Your task to perform on an android device: toggle translation in the chrome app Image 0: 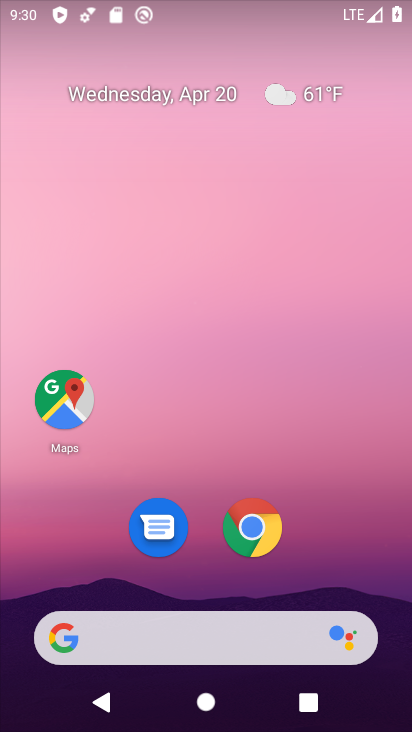
Step 0: click (255, 532)
Your task to perform on an android device: toggle translation in the chrome app Image 1: 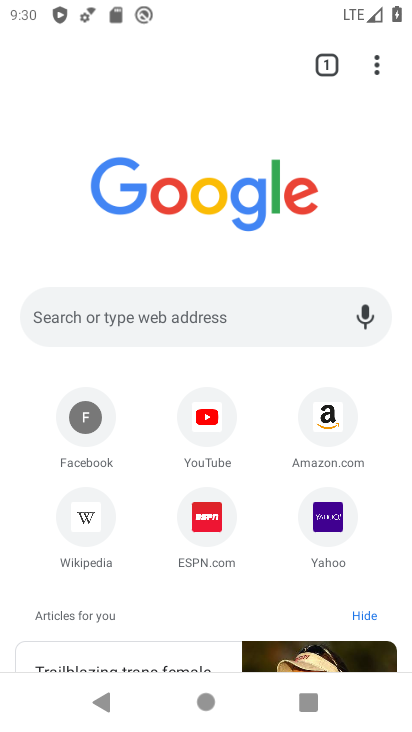
Step 1: click (376, 65)
Your task to perform on an android device: toggle translation in the chrome app Image 2: 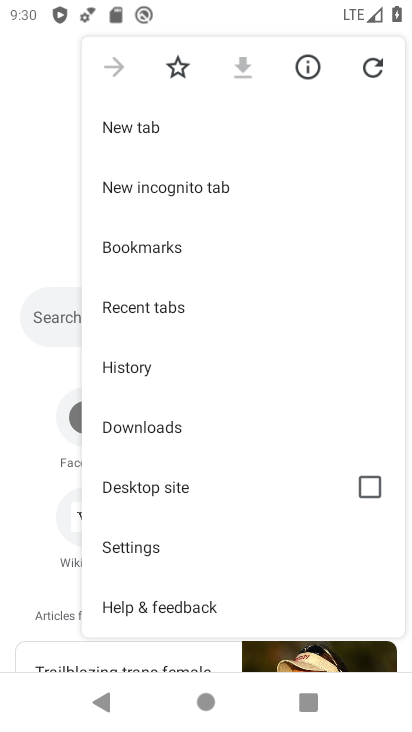
Step 2: click (129, 541)
Your task to perform on an android device: toggle translation in the chrome app Image 3: 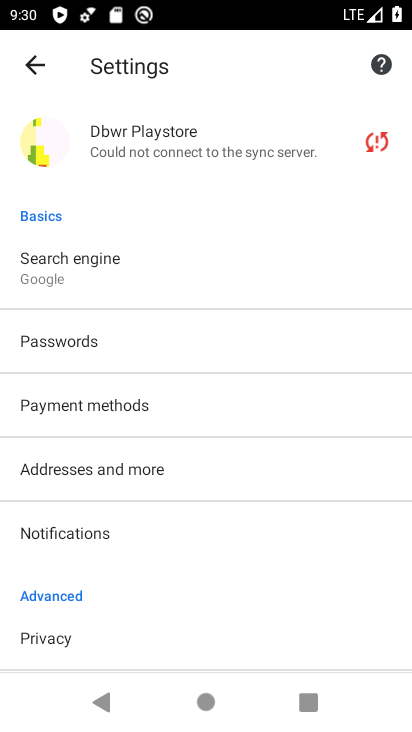
Step 3: drag from (200, 584) to (235, 214)
Your task to perform on an android device: toggle translation in the chrome app Image 4: 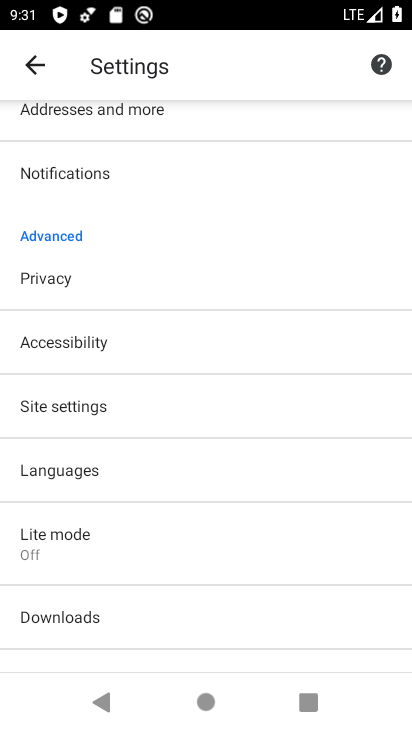
Step 4: click (78, 472)
Your task to perform on an android device: toggle translation in the chrome app Image 5: 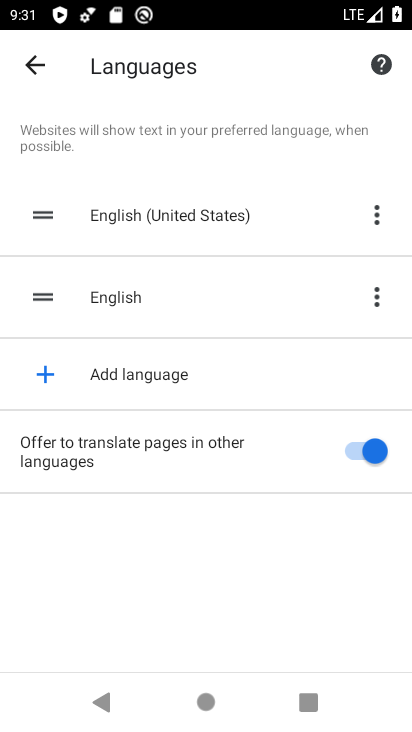
Step 5: click (375, 449)
Your task to perform on an android device: toggle translation in the chrome app Image 6: 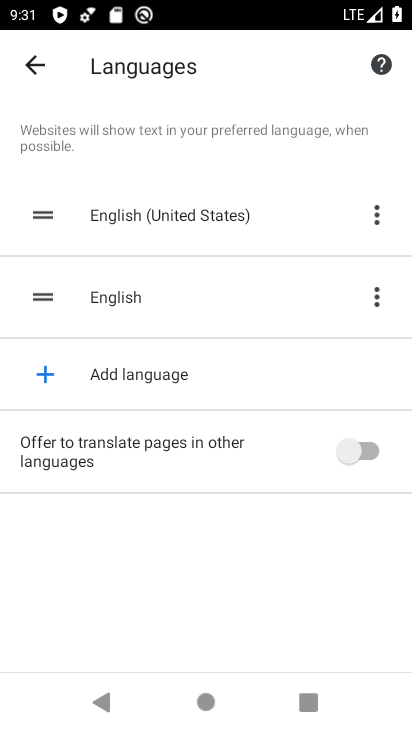
Step 6: task complete